Your task to perform on an android device: choose inbox layout in the gmail app Image 0: 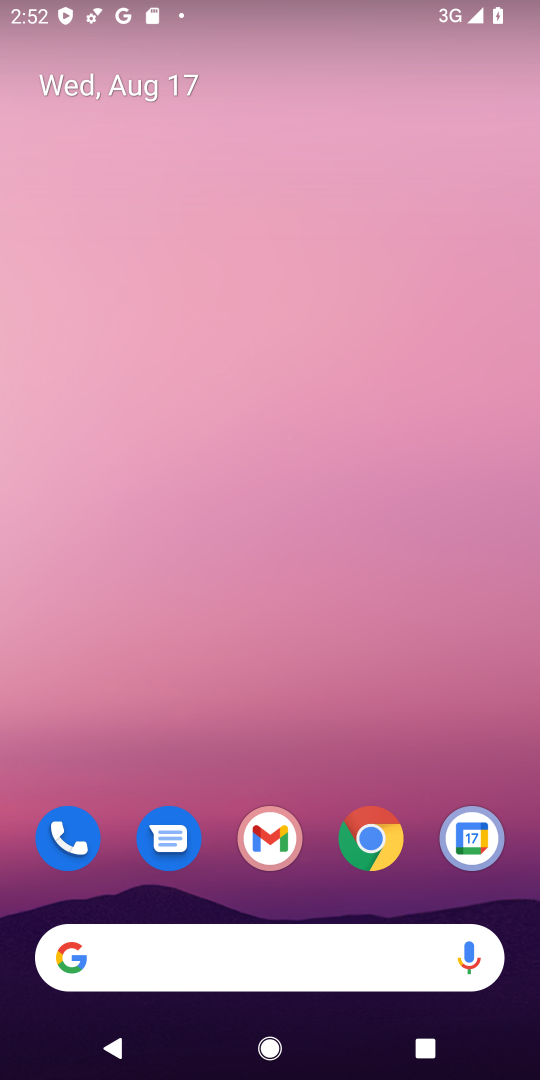
Step 0: click (268, 856)
Your task to perform on an android device: choose inbox layout in the gmail app Image 1: 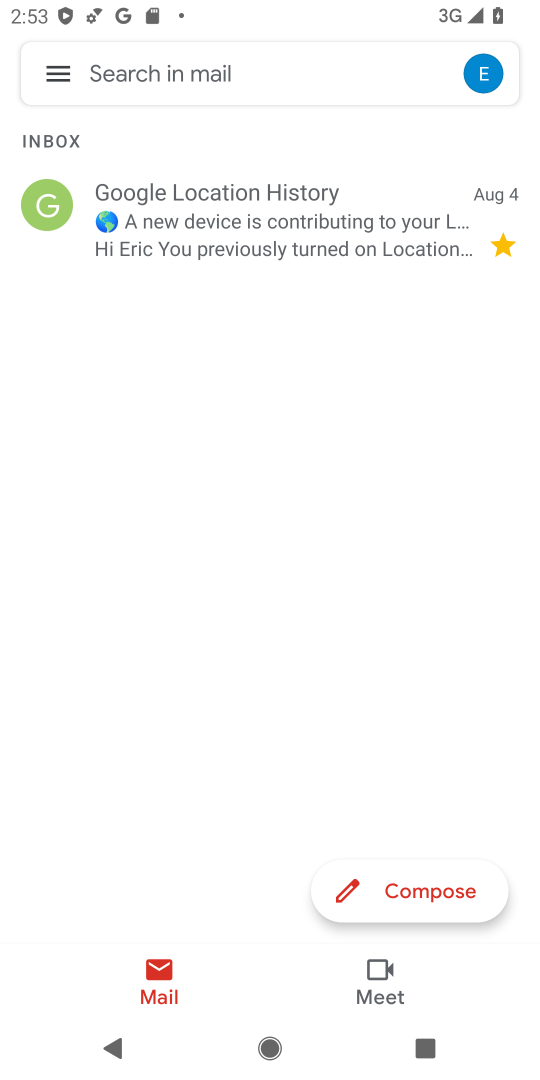
Step 1: click (56, 77)
Your task to perform on an android device: choose inbox layout in the gmail app Image 2: 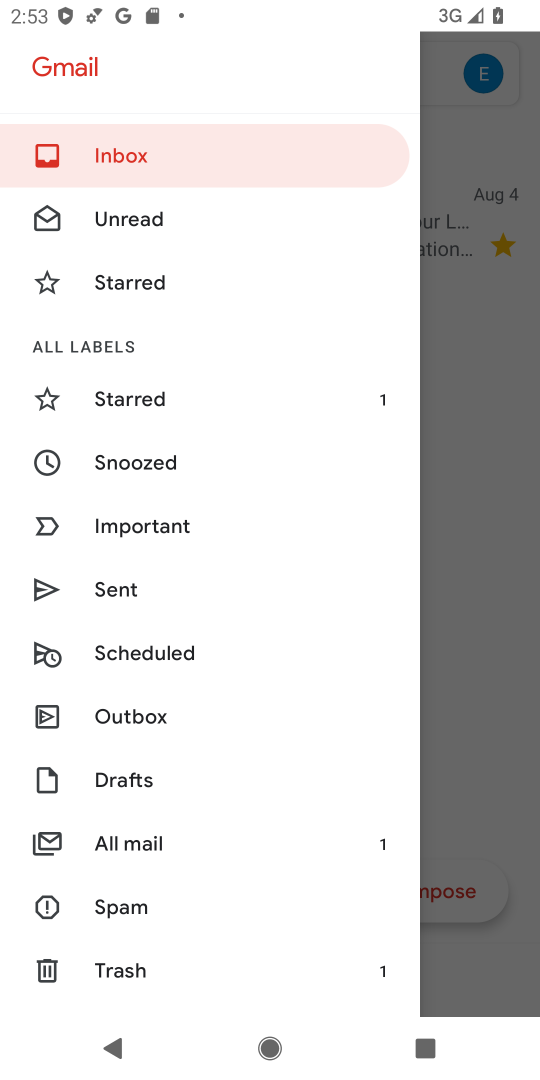
Step 2: drag from (139, 933) to (322, 170)
Your task to perform on an android device: choose inbox layout in the gmail app Image 3: 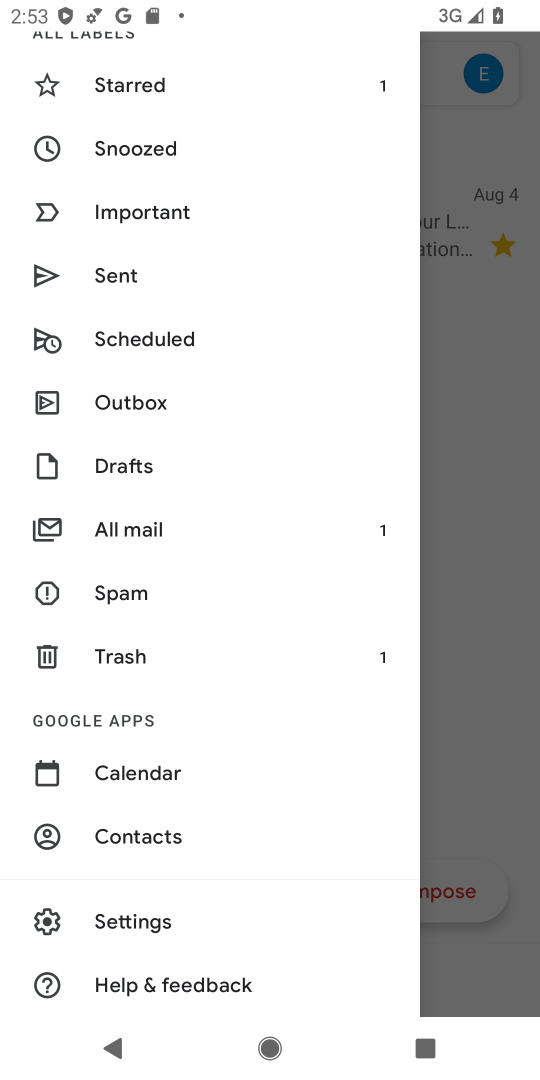
Step 3: click (145, 924)
Your task to perform on an android device: choose inbox layout in the gmail app Image 4: 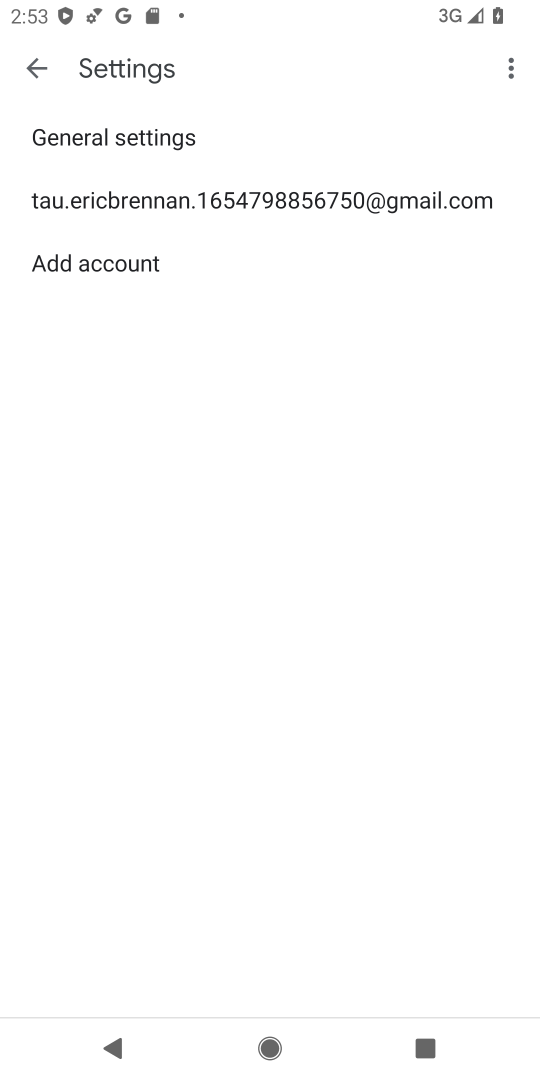
Step 4: click (128, 211)
Your task to perform on an android device: choose inbox layout in the gmail app Image 5: 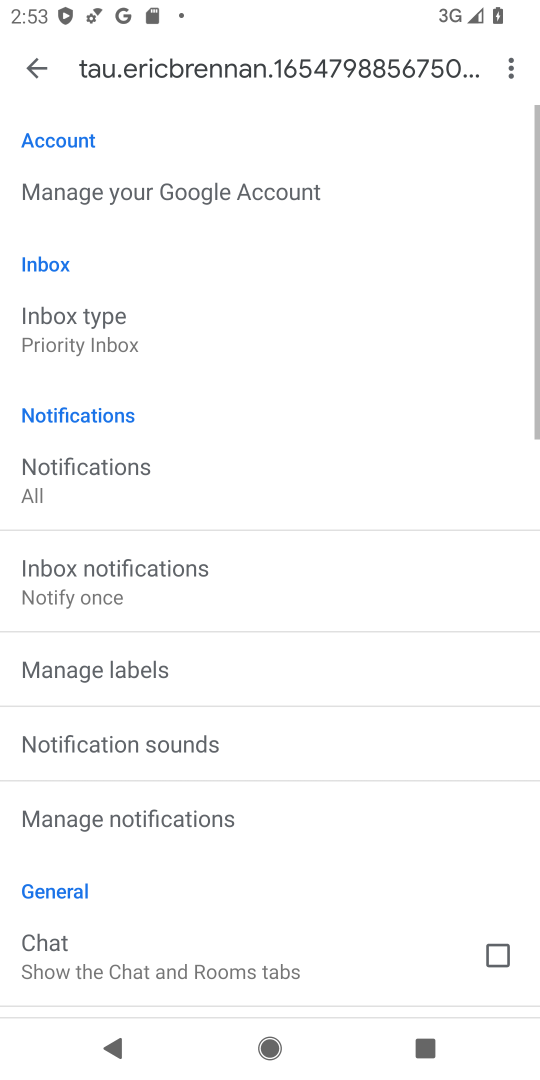
Step 5: click (52, 347)
Your task to perform on an android device: choose inbox layout in the gmail app Image 6: 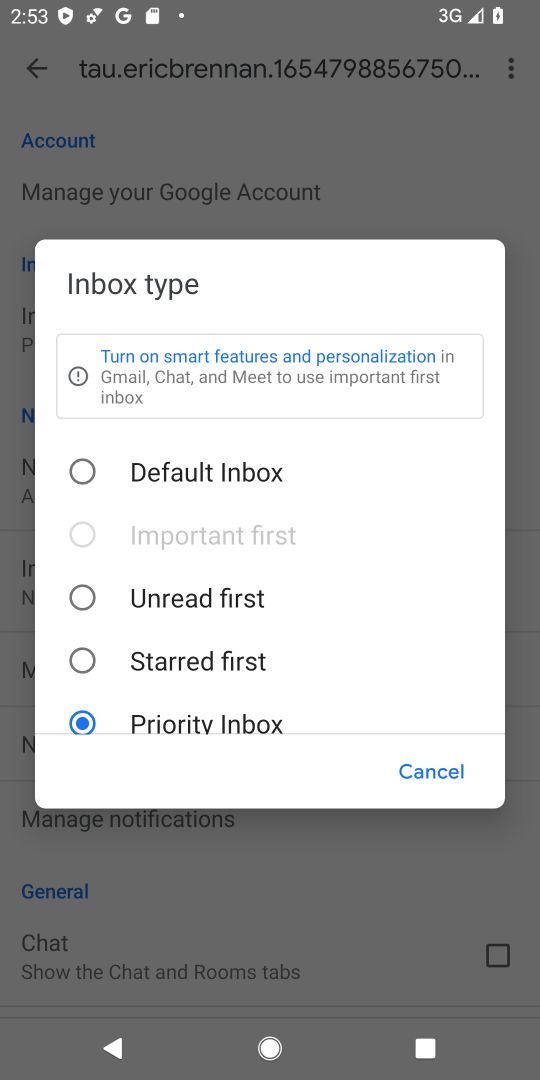
Step 6: click (79, 469)
Your task to perform on an android device: choose inbox layout in the gmail app Image 7: 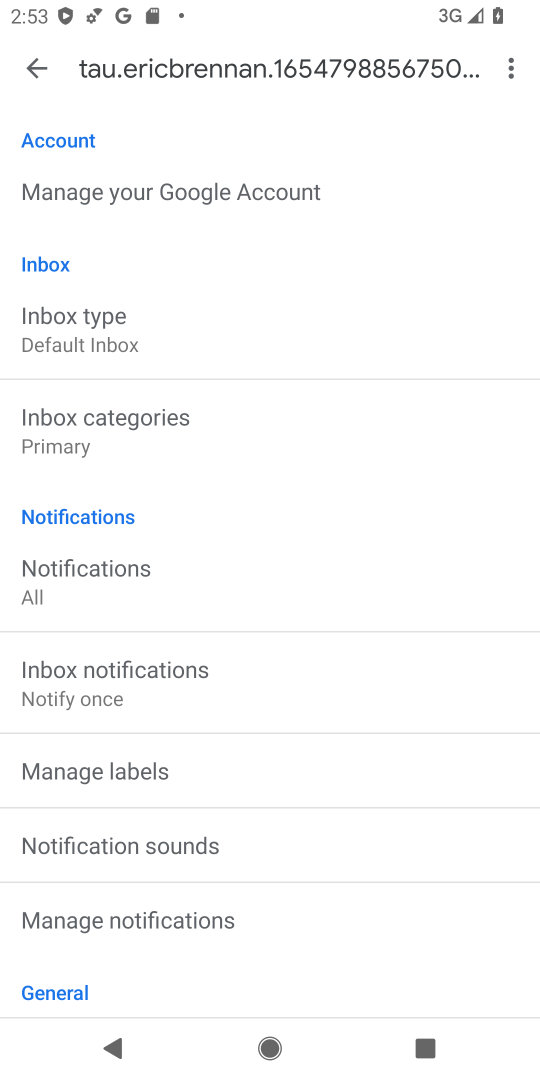
Step 7: task complete